Your task to perform on an android device: Open accessibility settings Image 0: 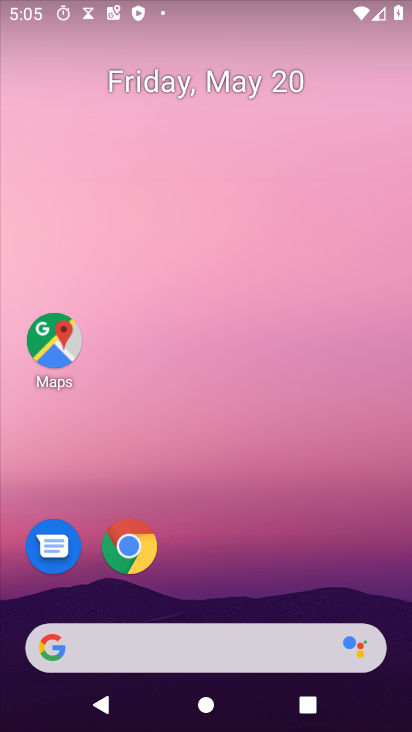
Step 0: drag from (270, 556) to (209, 62)
Your task to perform on an android device: Open accessibility settings Image 1: 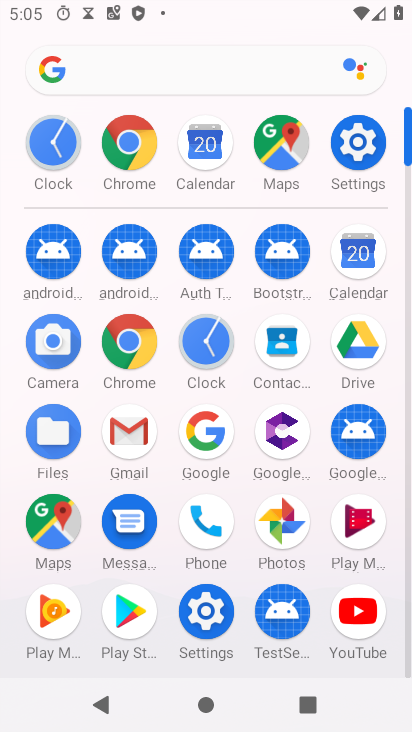
Step 1: click (205, 609)
Your task to perform on an android device: Open accessibility settings Image 2: 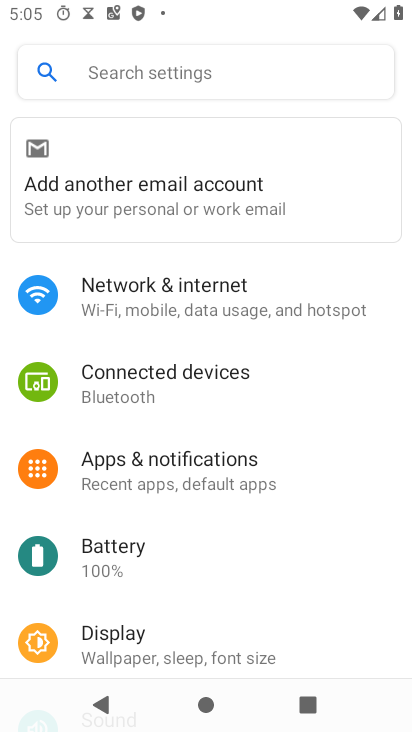
Step 2: drag from (167, 511) to (208, 409)
Your task to perform on an android device: Open accessibility settings Image 3: 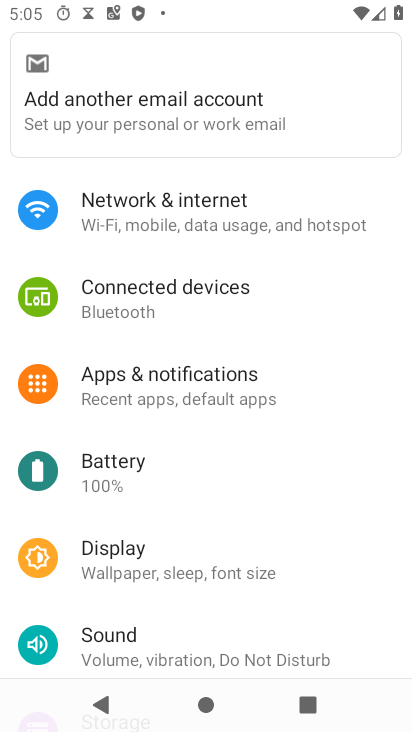
Step 3: drag from (172, 535) to (201, 446)
Your task to perform on an android device: Open accessibility settings Image 4: 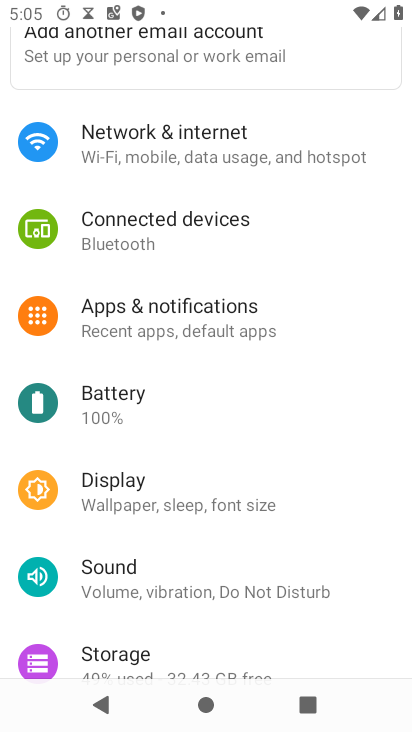
Step 4: drag from (166, 556) to (204, 445)
Your task to perform on an android device: Open accessibility settings Image 5: 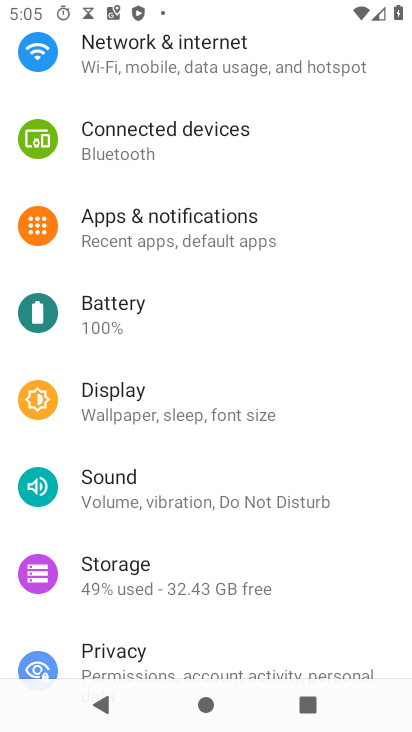
Step 5: drag from (153, 622) to (240, 508)
Your task to perform on an android device: Open accessibility settings Image 6: 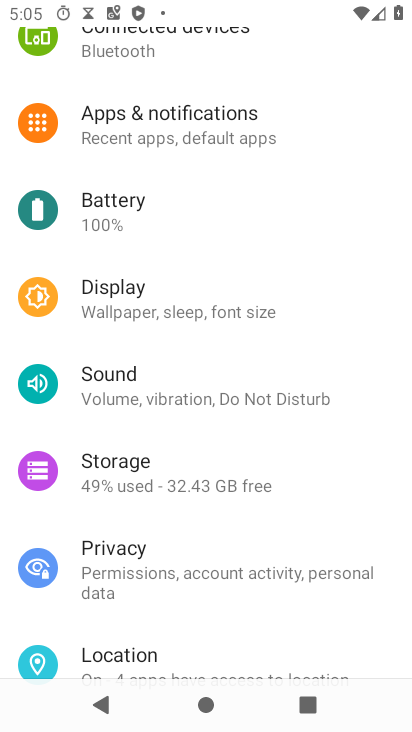
Step 6: drag from (188, 606) to (248, 498)
Your task to perform on an android device: Open accessibility settings Image 7: 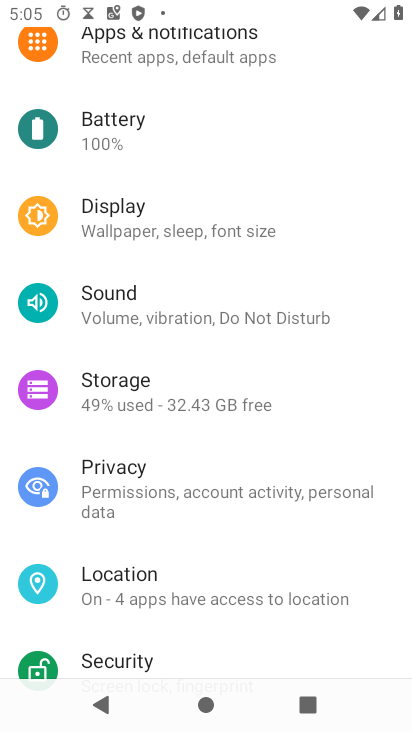
Step 7: drag from (148, 621) to (255, 465)
Your task to perform on an android device: Open accessibility settings Image 8: 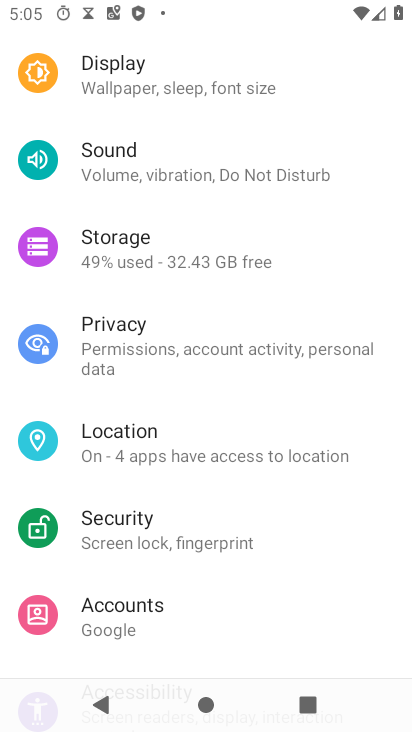
Step 8: drag from (191, 620) to (282, 439)
Your task to perform on an android device: Open accessibility settings Image 9: 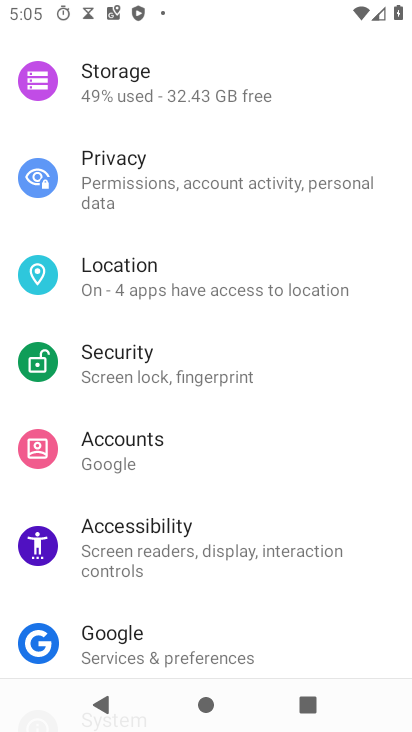
Step 9: click (160, 536)
Your task to perform on an android device: Open accessibility settings Image 10: 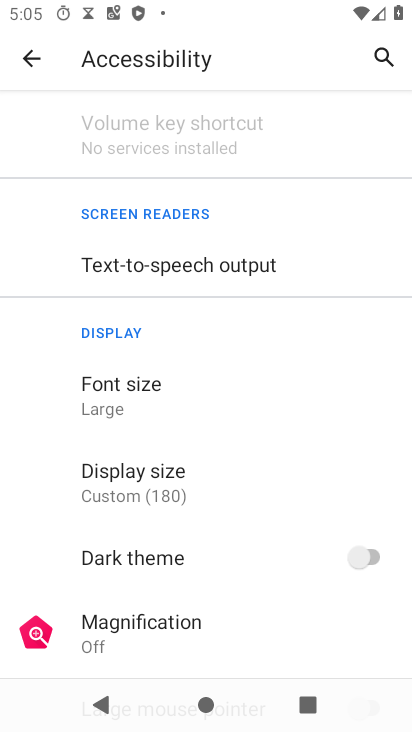
Step 10: task complete